Your task to perform on an android device: change the clock display to show seconds Image 0: 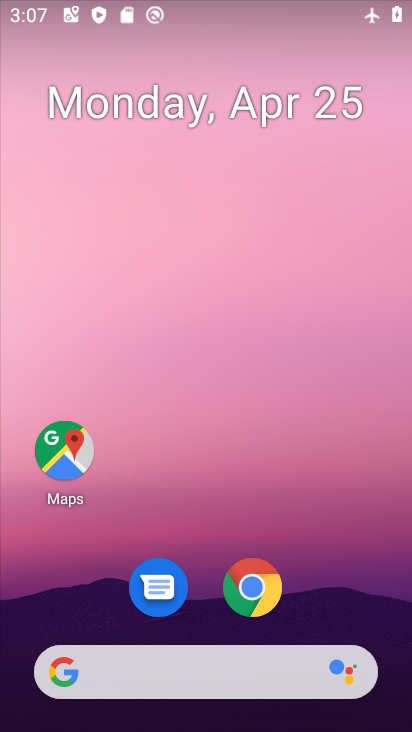
Step 0: drag from (207, 594) to (239, 136)
Your task to perform on an android device: change the clock display to show seconds Image 1: 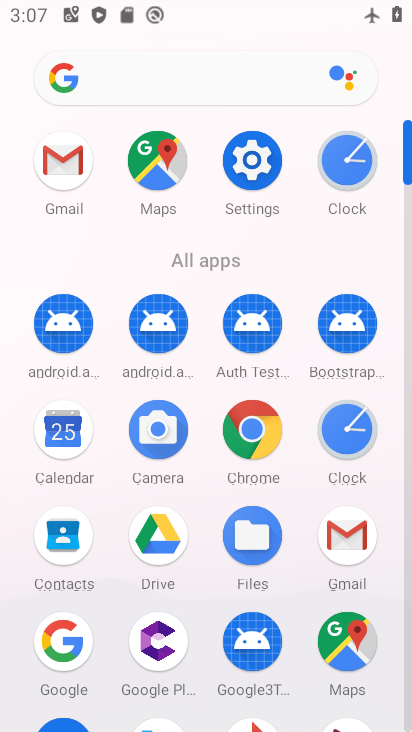
Step 1: click (247, 165)
Your task to perform on an android device: change the clock display to show seconds Image 2: 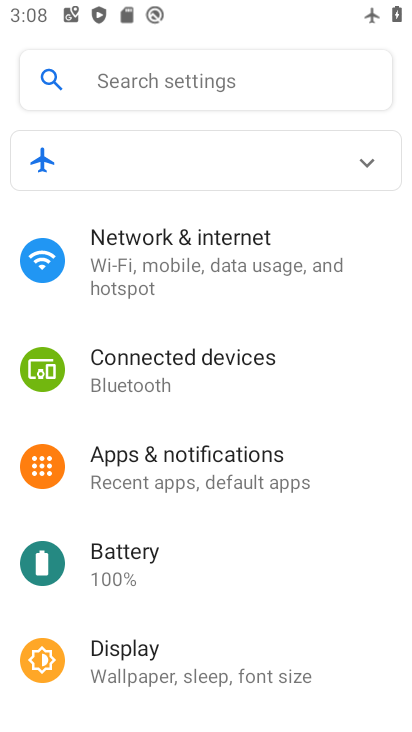
Step 2: task complete